Your task to perform on an android device: Go to Wikipedia Image 0: 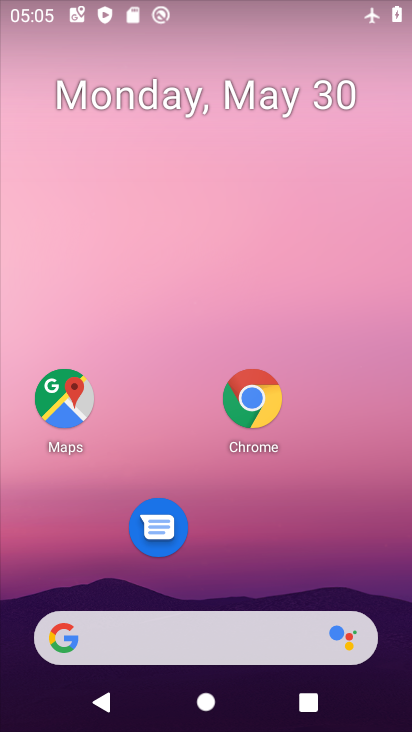
Step 0: click (256, 402)
Your task to perform on an android device: Go to Wikipedia Image 1: 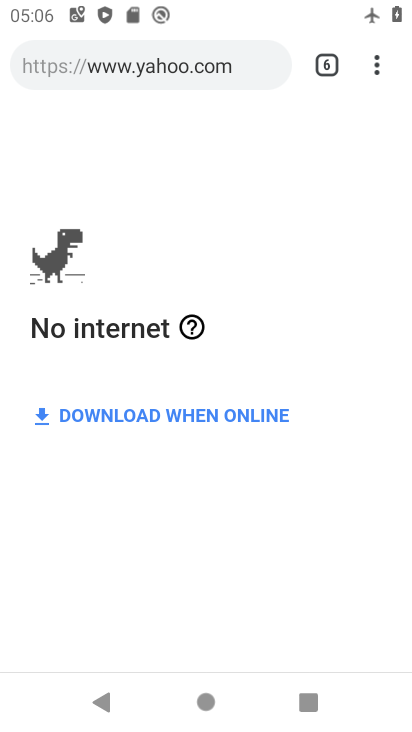
Step 1: task complete